Your task to perform on an android device: Open Yahoo.com Image 0: 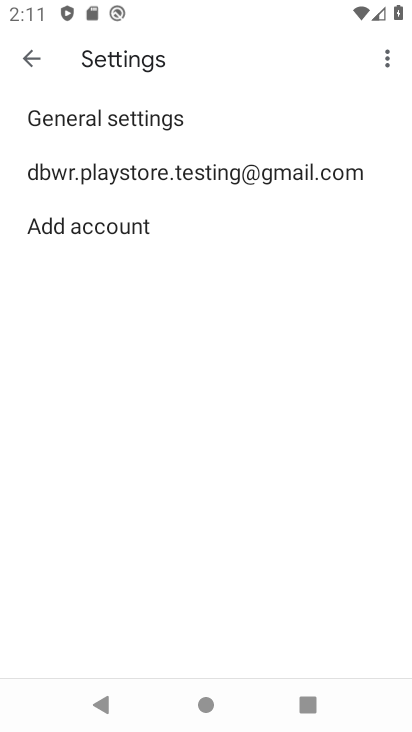
Step 0: press home button
Your task to perform on an android device: Open Yahoo.com Image 1: 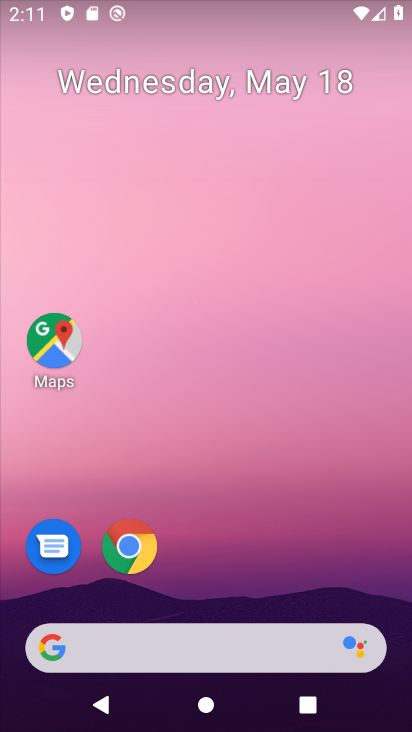
Step 1: click (131, 547)
Your task to perform on an android device: Open Yahoo.com Image 2: 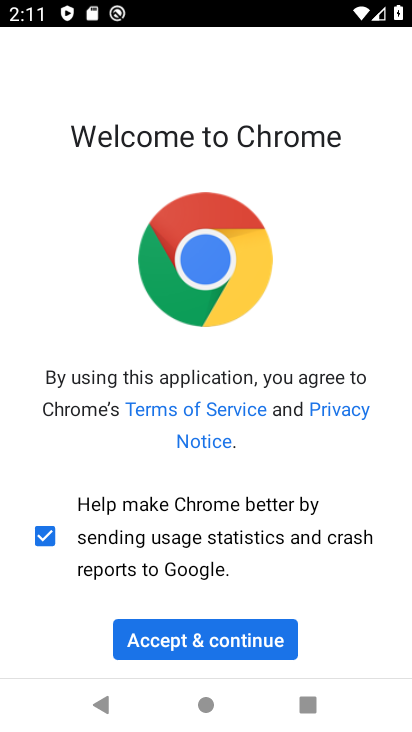
Step 2: click (201, 635)
Your task to perform on an android device: Open Yahoo.com Image 3: 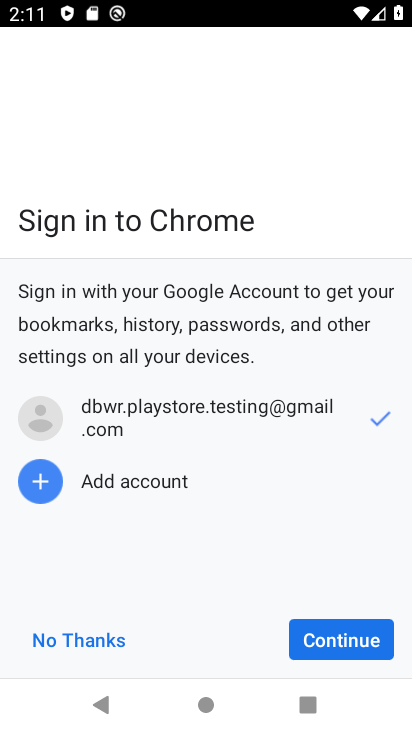
Step 3: click (360, 644)
Your task to perform on an android device: Open Yahoo.com Image 4: 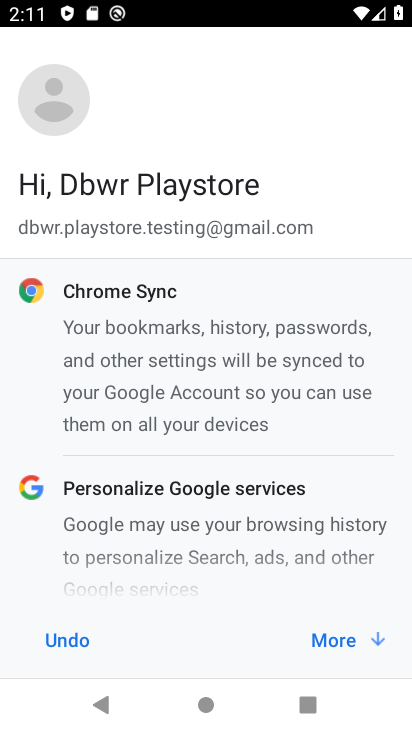
Step 4: click (337, 638)
Your task to perform on an android device: Open Yahoo.com Image 5: 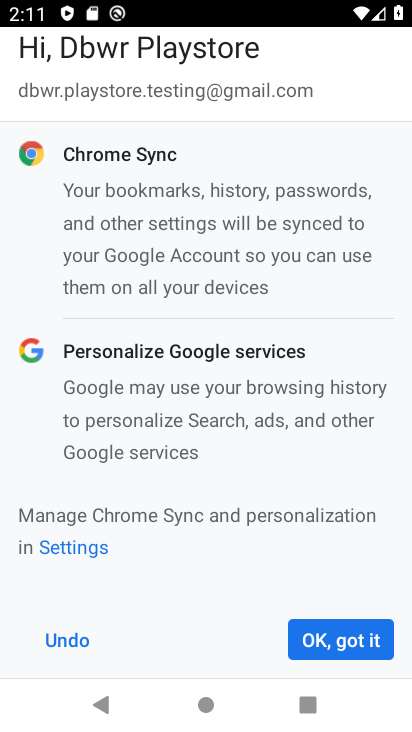
Step 5: click (338, 638)
Your task to perform on an android device: Open Yahoo.com Image 6: 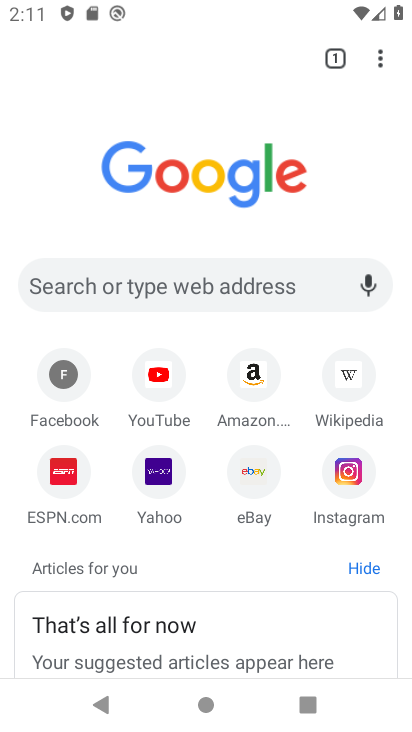
Step 6: click (162, 476)
Your task to perform on an android device: Open Yahoo.com Image 7: 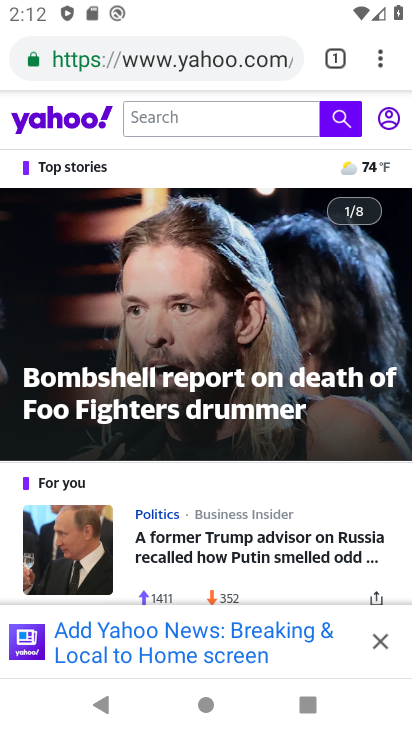
Step 7: task complete